Your task to perform on an android device: turn on translation in the chrome app Image 0: 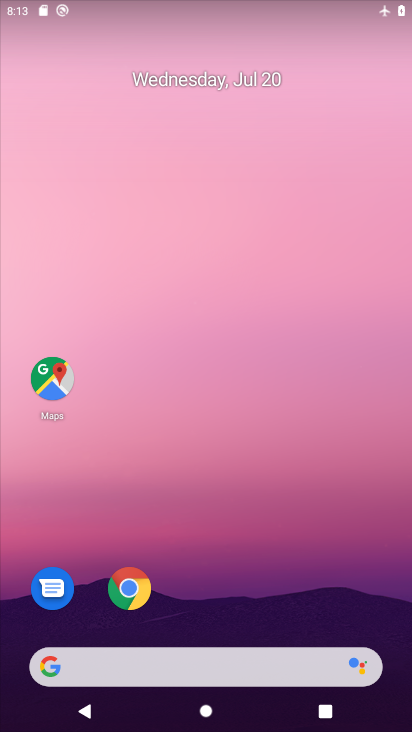
Step 0: click (127, 580)
Your task to perform on an android device: turn on translation in the chrome app Image 1: 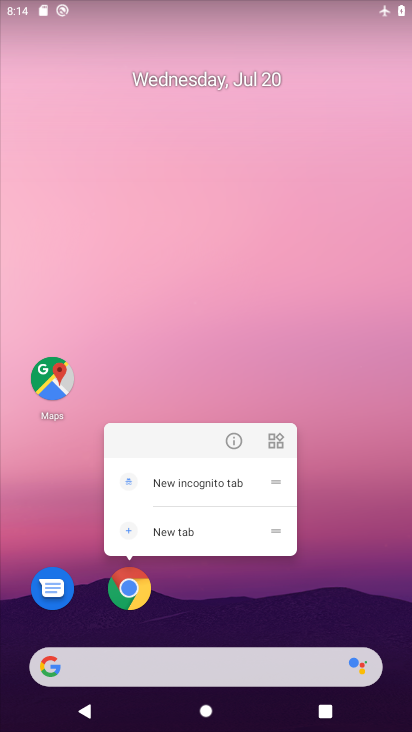
Step 1: click (127, 580)
Your task to perform on an android device: turn on translation in the chrome app Image 2: 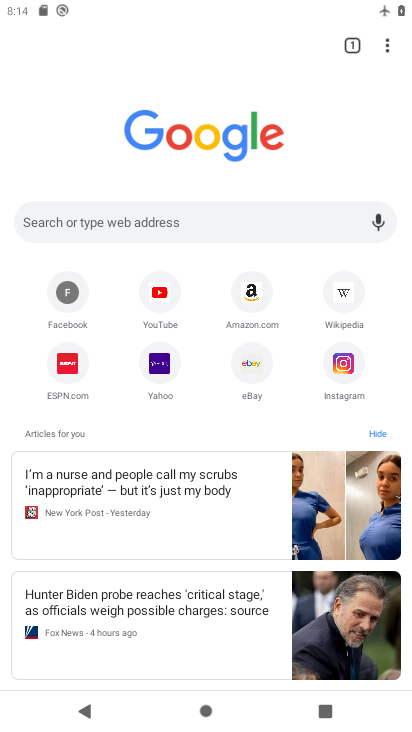
Step 2: click (382, 43)
Your task to perform on an android device: turn on translation in the chrome app Image 3: 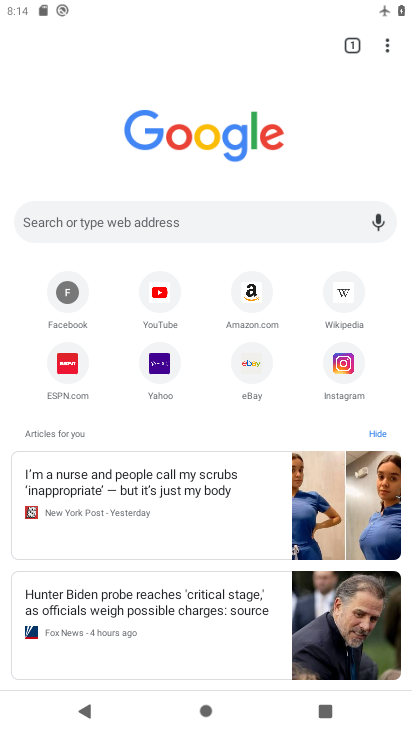
Step 3: click (386, 45)
Your task to perform on an android device: turn on translation in the chrome app Image 4: 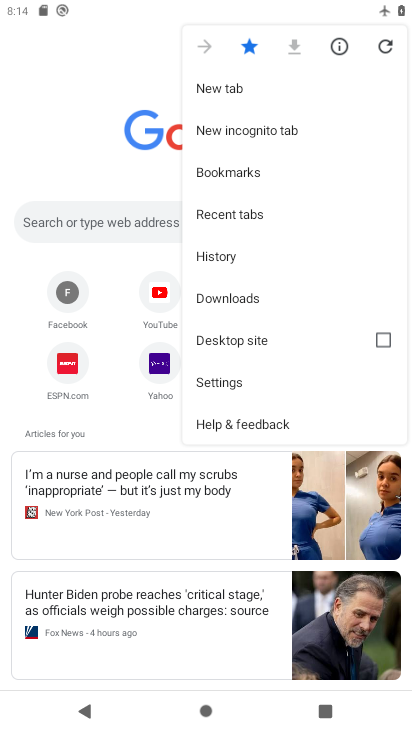
Step 4: click (252, 377)
Your task to perform on an android device: turn on translation in the chrome app Image 5: 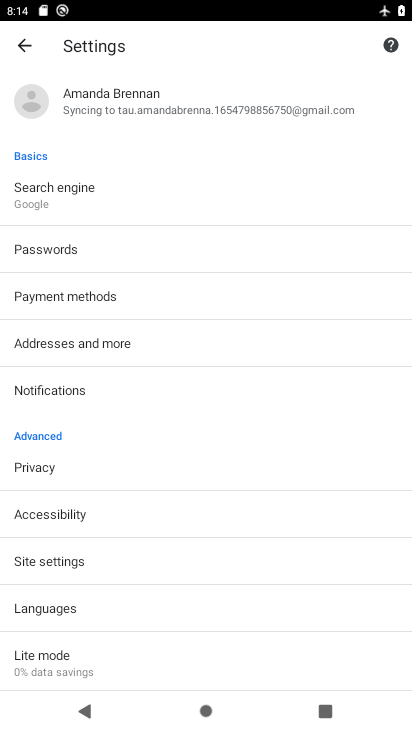
Step 5: click (103, 611)
Your task to perform on an android device: turn on translation in the chrome app Image 6: 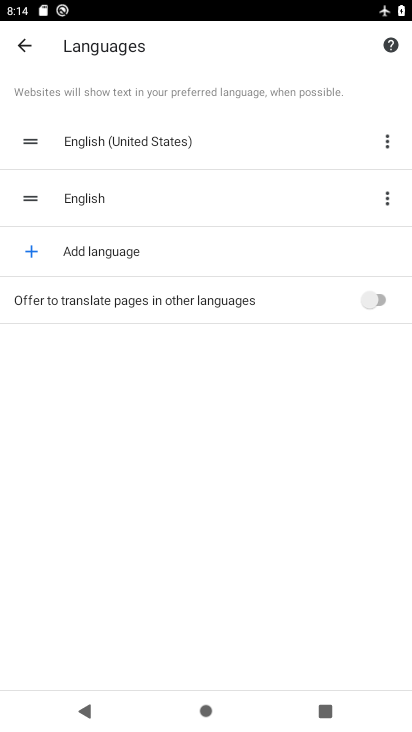
Step 6: click (374, 296)
Your task to perform on an android device: turn on translation in the chrome app Image 7: 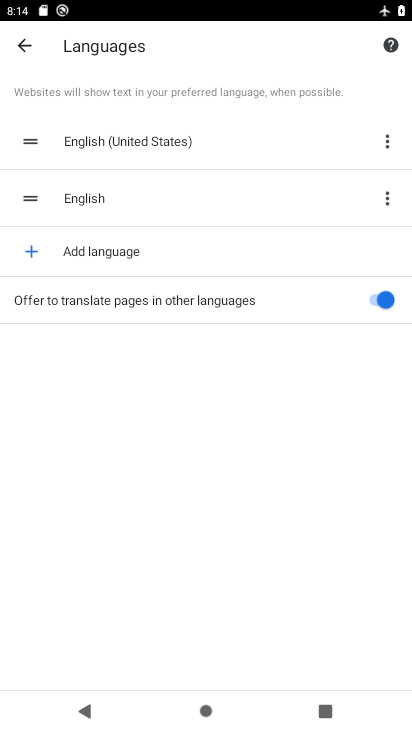
Step 7: task complete